Your task to perform on an android device: Go to Android settings Image 0: 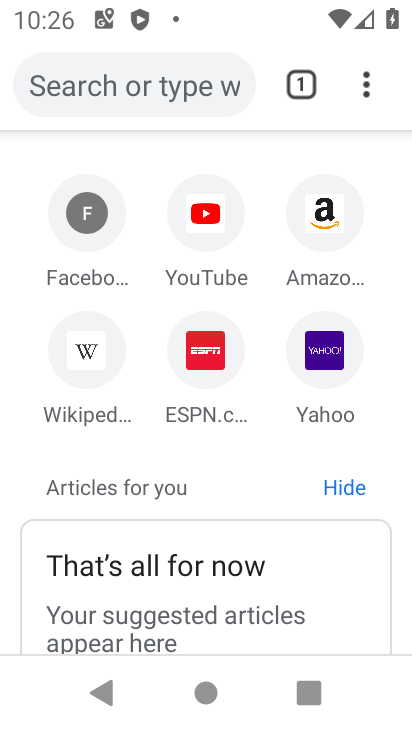
Step 0: press home button
Your task to perform on an android device: Go to Android settings Image 1: 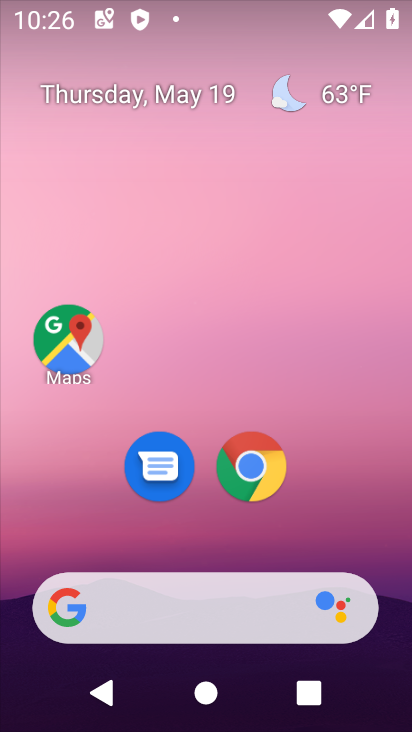
Step 1: drag from (390, 614) to (261, 39)
Your task to perform on an android device: Go to Android settings Image 2: 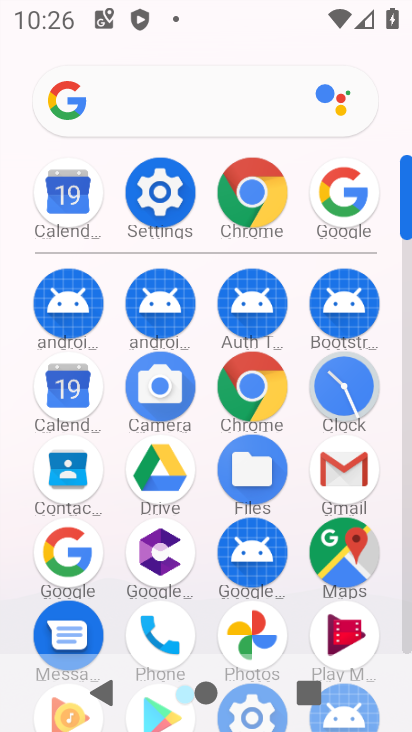
Step 2: click (153, 200)
Your task to perform on an android device: Go to Android settings Image 3: 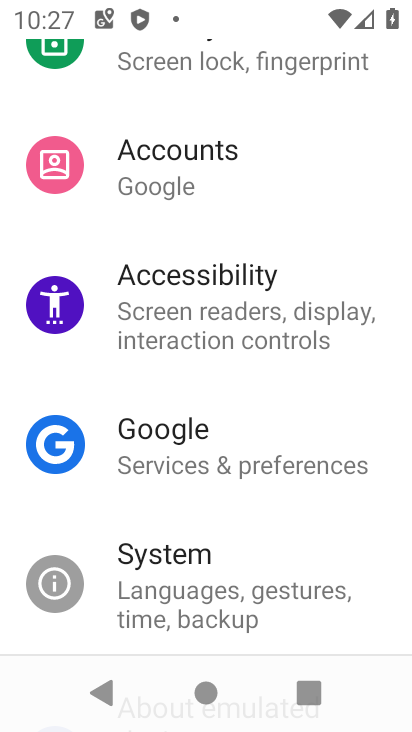
Step 3: drag from (242, 632) to (300, 68)
Your task to perform on an android device: Go to Android settings Image 4: 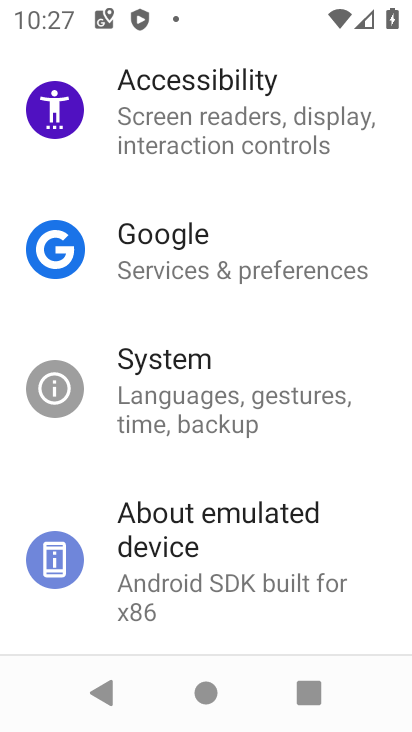
Step 4: click (274, 561)
Your task to perform on an android device: Go to Android settings Image 5: 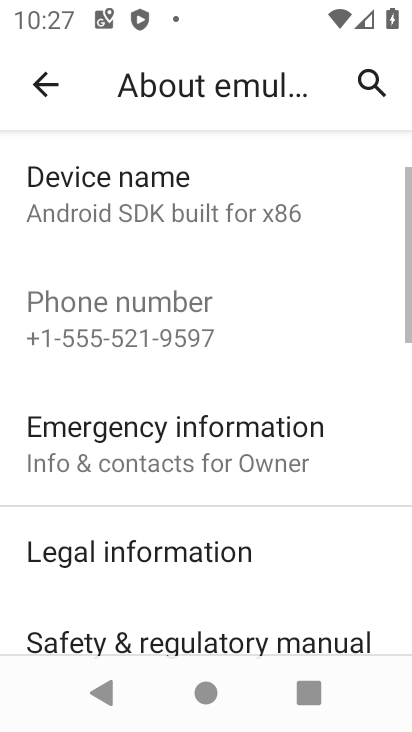
Step 5: drag from (184, 598) to (261, 21)
Your task to perform on an android device: Go to Android settings Image 6: 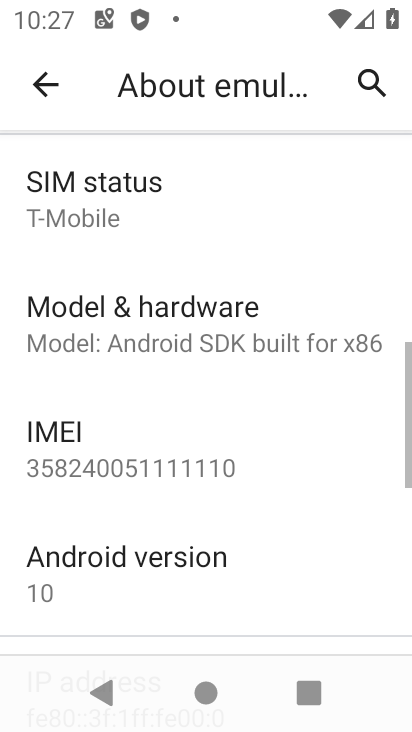
Step 6: click (174, 562)
Your task to perform on an android device: Go to Android settings Image 7: 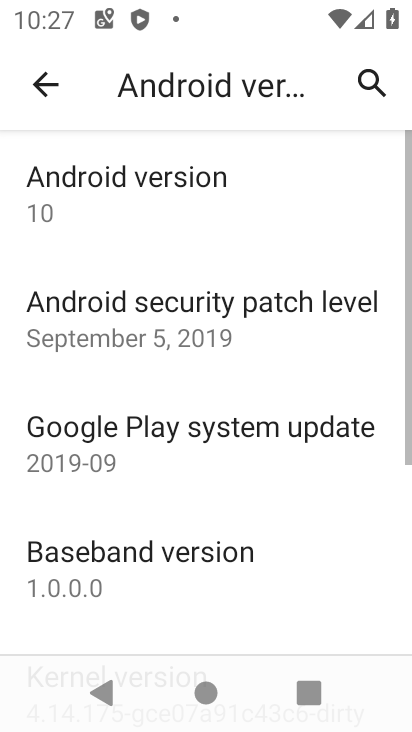
Step 7: task complete